Your task to perform on an android device: Open Google Chrome and open the bookmarks view Image 0: 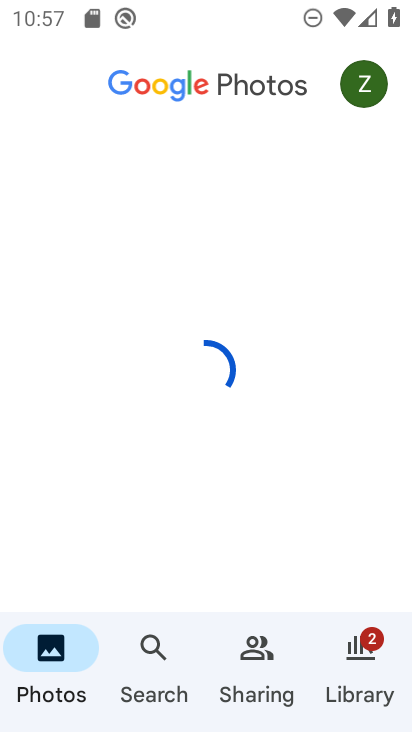
Step 0: drag from (367, 459) to (363, 206)
Your task to perform on an android device: Open Google Chrome and open the bookmarks view Image 1: 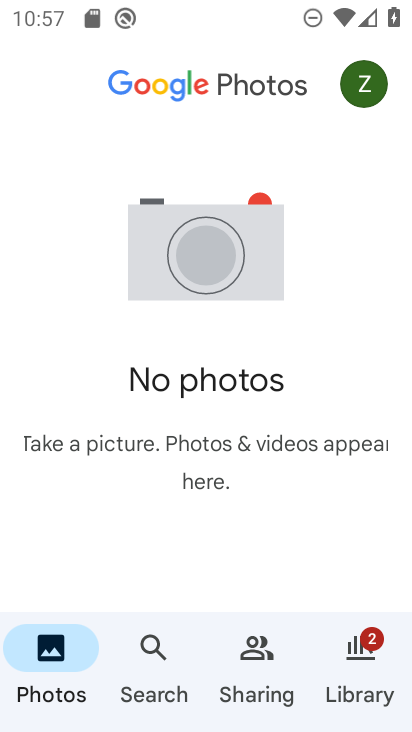
Step 1: press home button
Your task to perform on an android device: Open Google Chrome and open the bookmarks view Image 2: 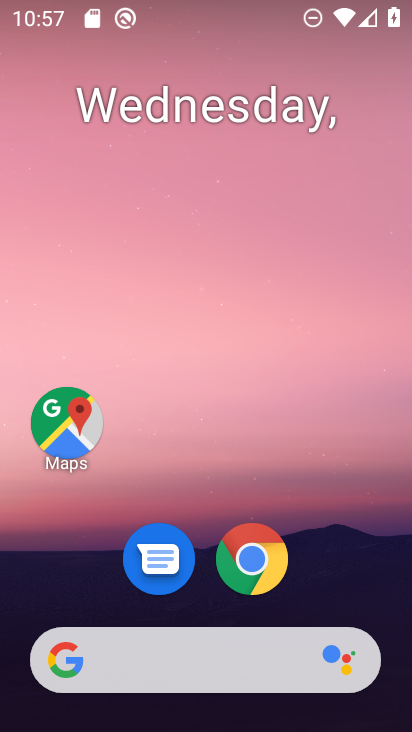
Step 2: drag from (354, 580) to (342, 82)
Your task to perform on an android device: Open Google Chrome and open the bookmarks view Image 3: 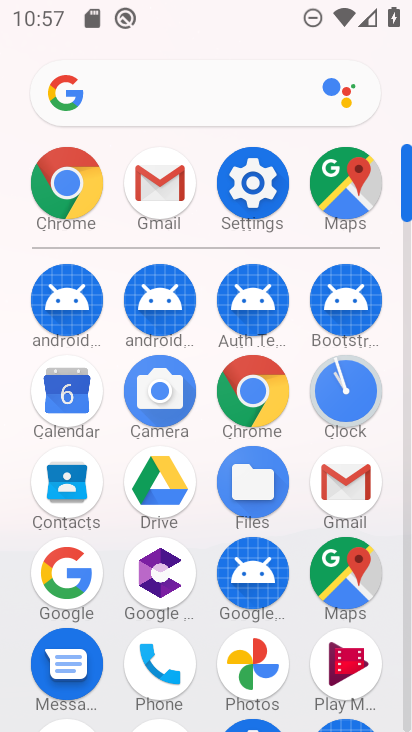
Step 3: click (264, 401)
Your task to perform on an android device: Open Google Chrome and open the bookmarks view Image 4: 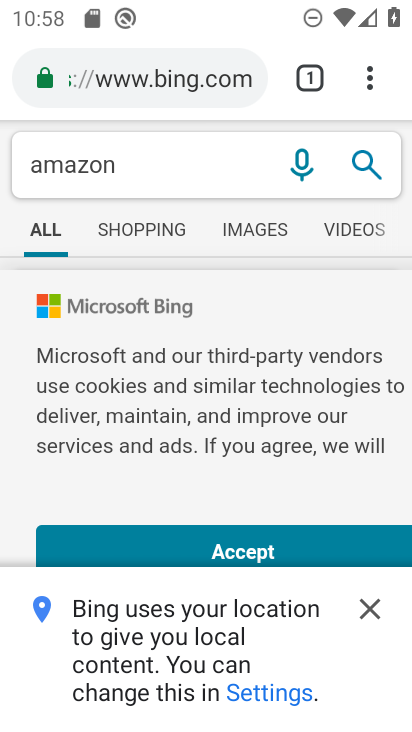
Step 4: click (373, 88)
Your task to perform on an android device: Open Google Chrome and open the bookmarks view Image 5: 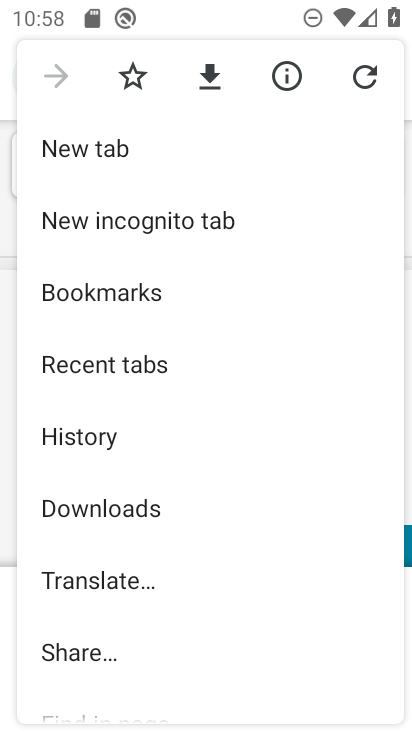
Step 5: click (173, 286)
Your task to perform on an android device: Open Google Chrome and open the bookmarks view Image 6: 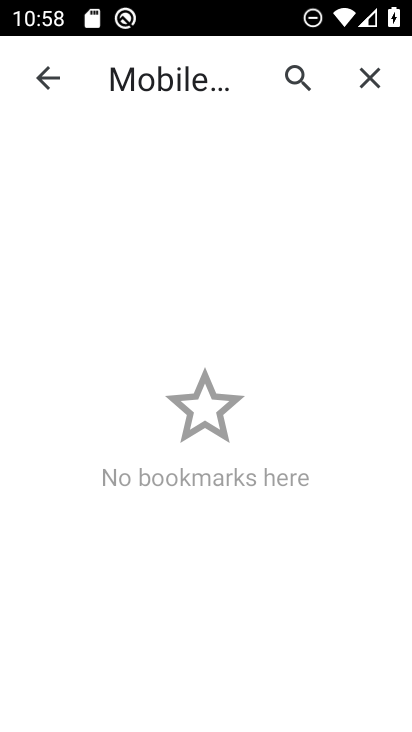
Step 6: task complete